Your task to perform on an android device: Go to Yahoo.com Image 0: 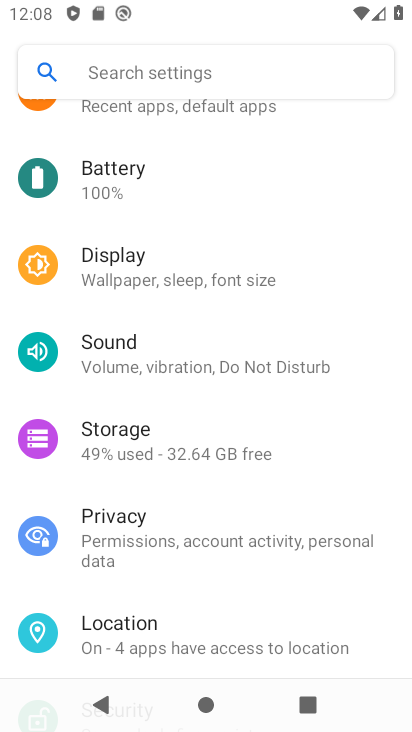
Step 0: press home button
Your task to perform on an android device: Go to Yahoo.com Image 1: 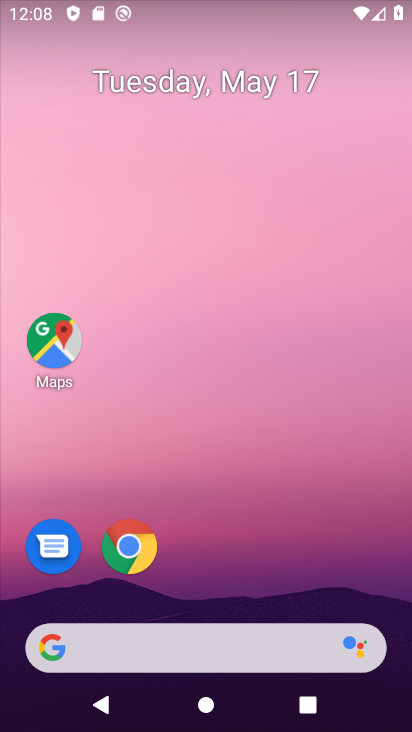
Step 1: drag from (307, 544) to (340, 67)
Your task to perform on an android device: Go to Yahoo.com Image 2: 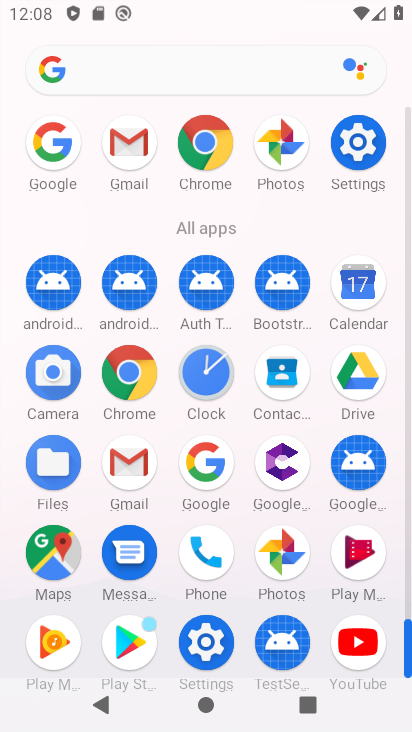
Step 2: click (208, 153)
Your task to perform on an android device: Go to Yahoo.com Image 3: 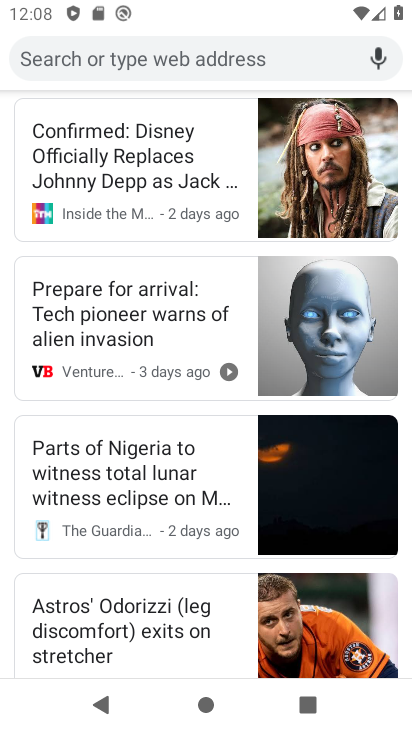
Step 3: click (197, 68)
Your task to perform on an android device: Go to Yahoo.com Image 4: 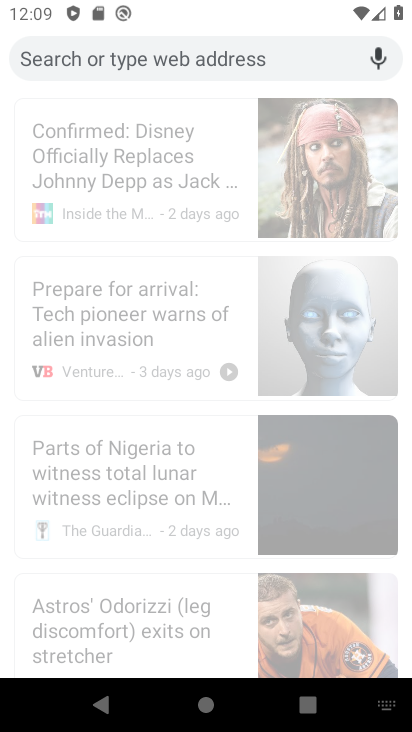
Step 4: type "yahoo"
Your task to perform on an android device: Go to Yahoo.com Image 5: 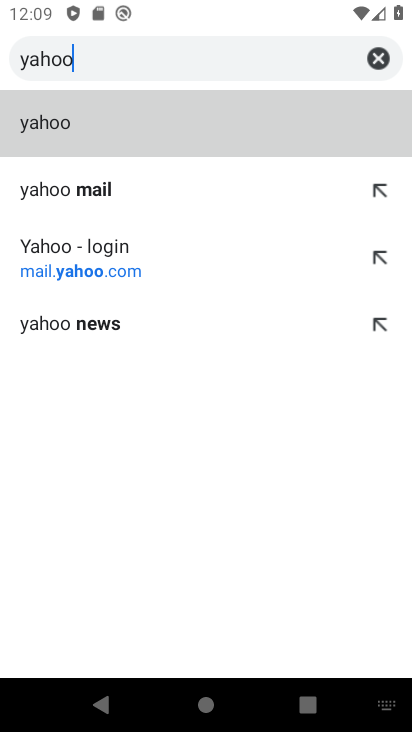
Step 5: click (85, 193)
Your task to perform on an android device: Go to Yahoo.com Image 6: 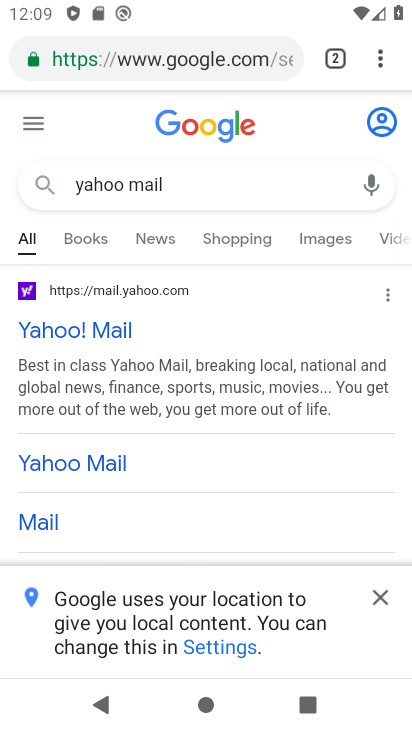
Step 6: task complete